Your task to perform on an android device: find which apps use the phone's location Image 0: 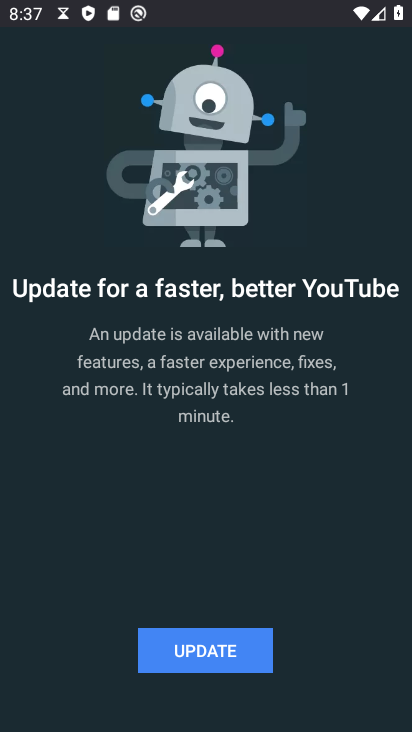
Step 0: press home button
Your task to perform on an android device: find which apps use the phone's location Image 1: 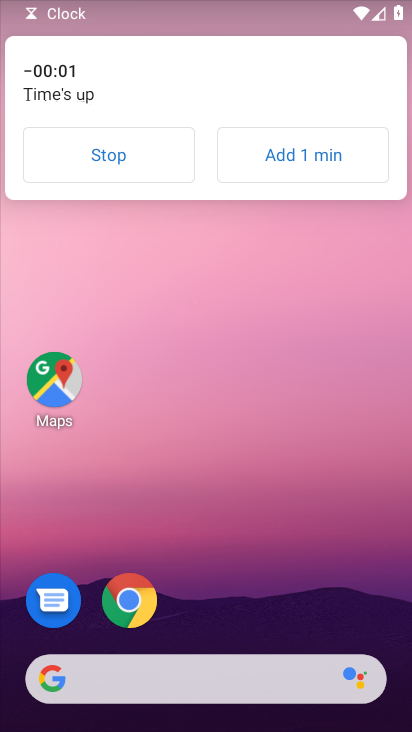
Step 1: drag from (209, 699) to (178, 206)
Your task to perform on an android device: find which apps use the phone's location Image 2: 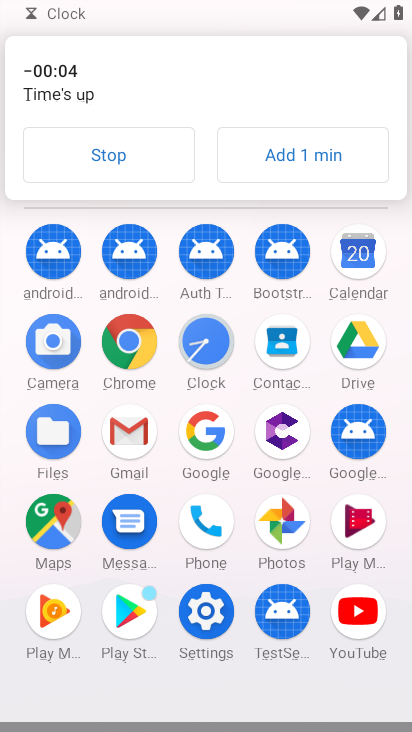
Step 2: click (202, 620)
Your task to perform on an android device: find which apps use the phone's location Image 3: 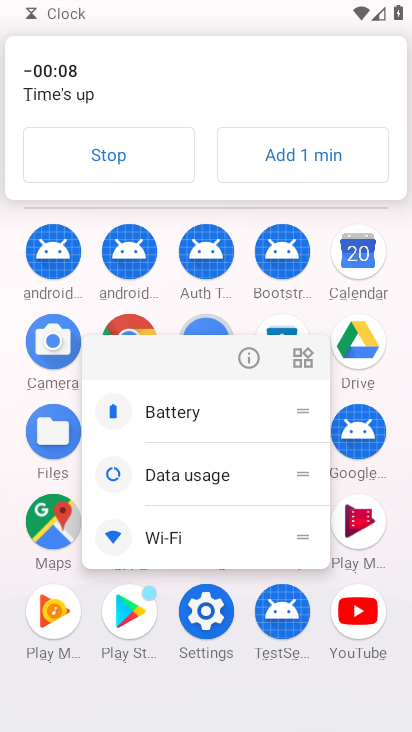
Step 3: click (201, 618)
Your task to perform on an android device: find which apps use the phone's location Image 4: 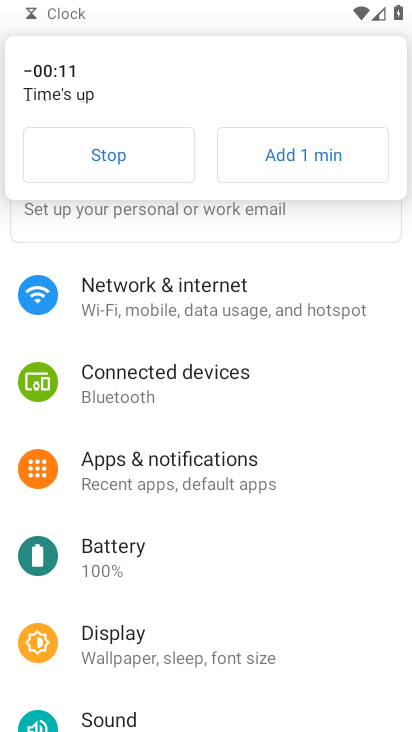
Step 4: drag from (186, 694) to (197, 240)
Your task to perform on an android device: find which apps use the phone's location Image 5: 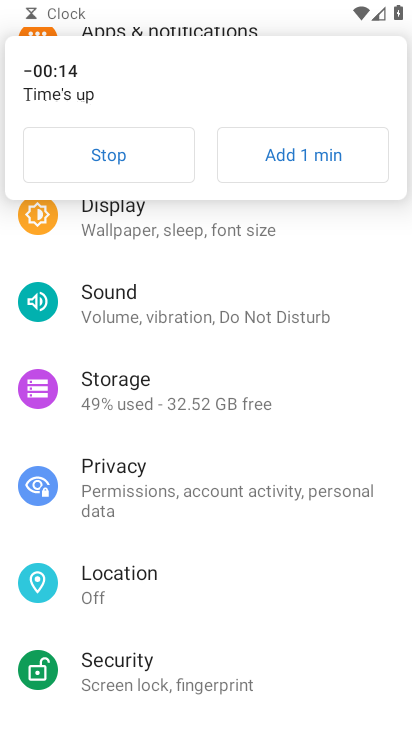
Step 5: click (116, 573)
Your task to perform on an android device: find which apps use the phone's location Image 6: 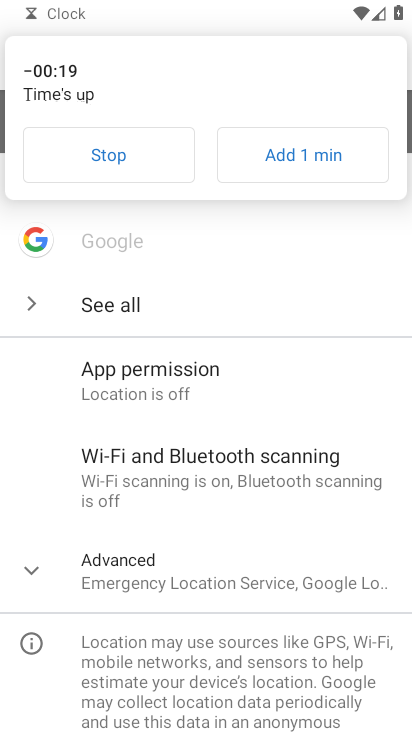
Step 6: click (127, 382)
Your task to perform on an android device: find which apps use the phone's location Image 7: 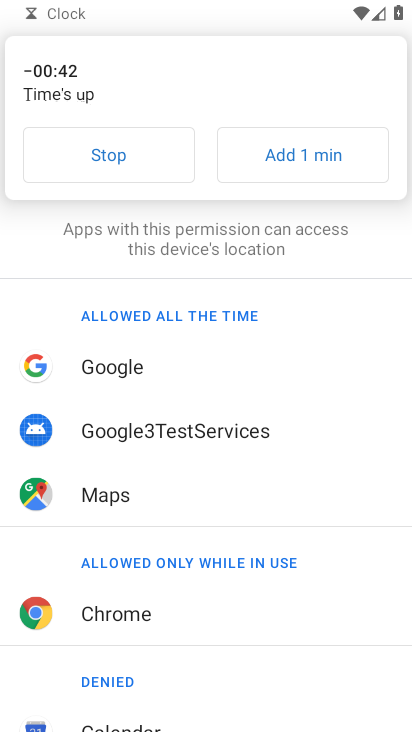
Step 7: task complete